Your task to perform on an android device: turn on airplane mode Image 0: 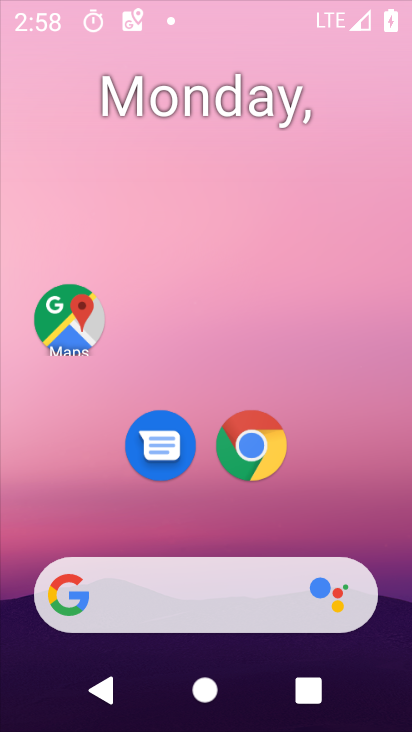
Step 0: click (204, 7)
Your task to perform on an android device: turn on airplane mode Image 1: 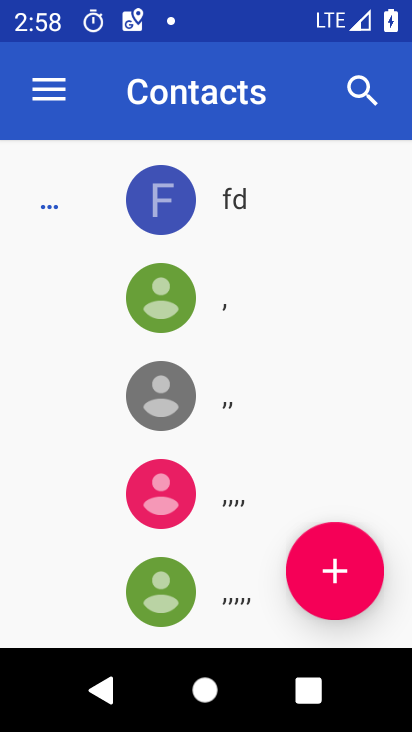
Step 1: press home button
Your task to perform on an android device: turn on airplane mode Image 2: 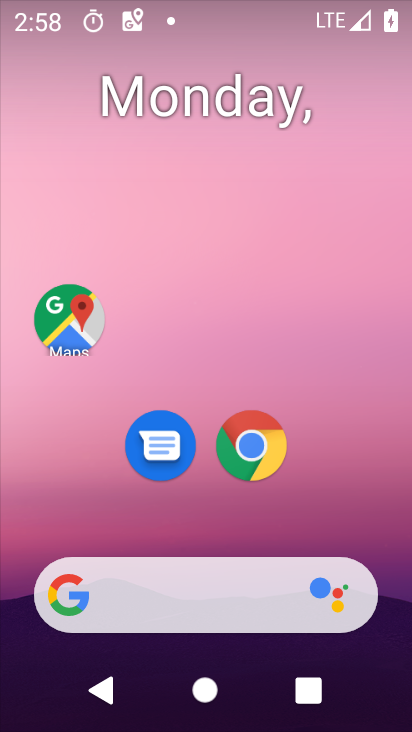
Step 2: drag from (182, 562) to (161, 95)
Your task to perform on an android device: turn on airplane mode Image 3: 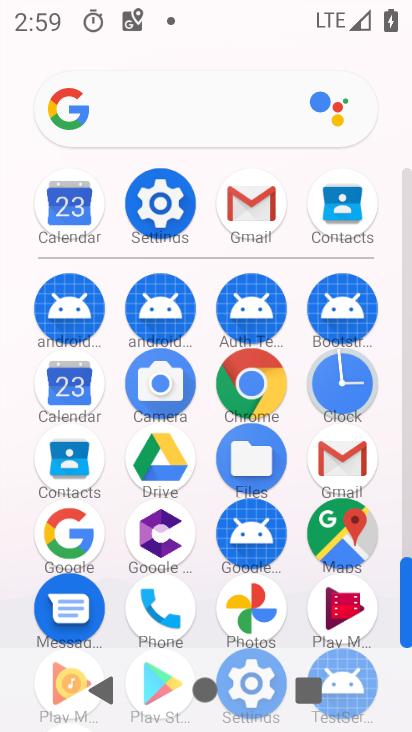
Step 3: click (159, 185)
Your task to perform on an android device: turn on airplane mode Image 4: 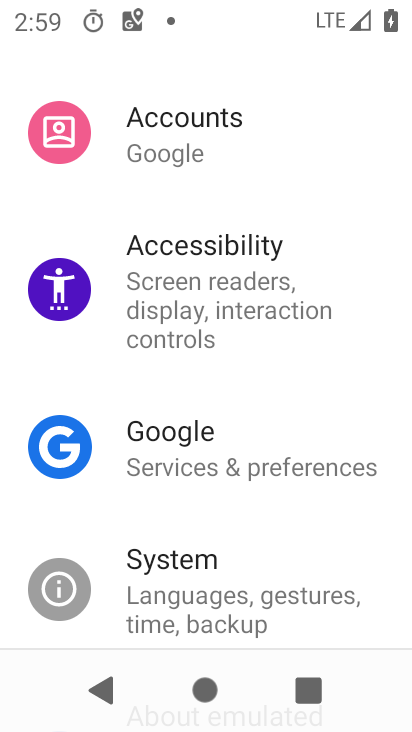
Step 4: drag from (183, 163) to (206, 662)
Your task to perform on an android device: turn on airplane mode Image 5: 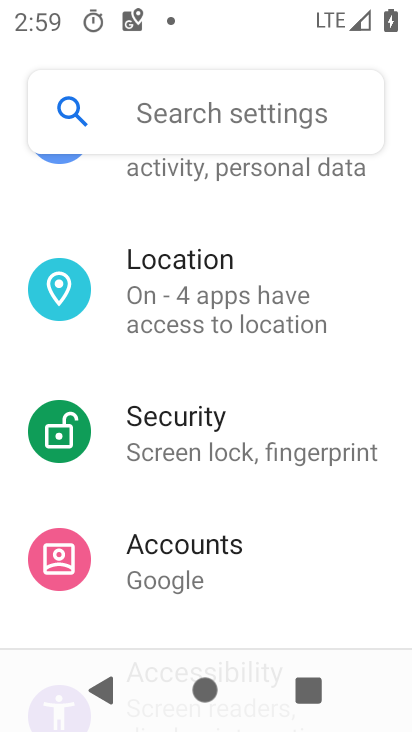
Step 5: drag from (227, 180) to (145, 711)
Your task to perform on an android device: turn on airplane mode Image 6: 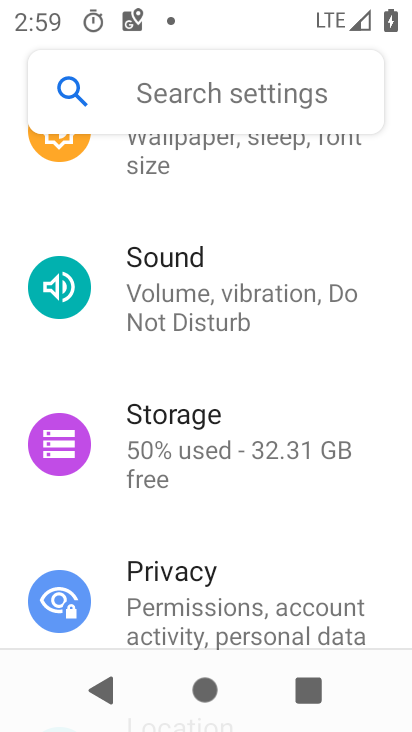
Step 6: drag from (208, 157) to (230, 725)
Your task to perform on an android device: turn on airplane mode Image 7: 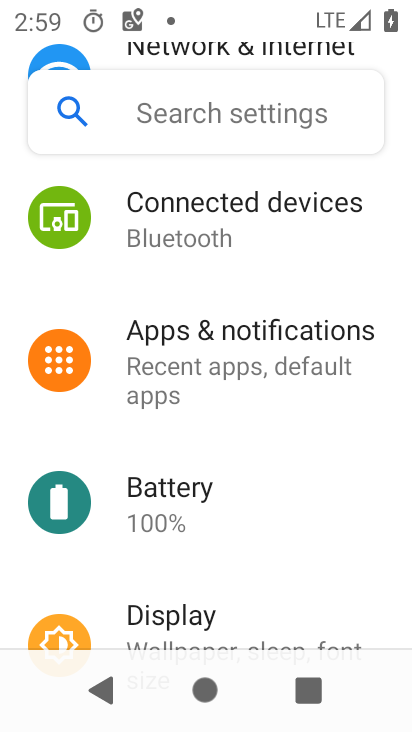
Step 7: drag from (249, 170) to (272, 640)
Your task to perform on an android device: turn on airplane mode Image 8: 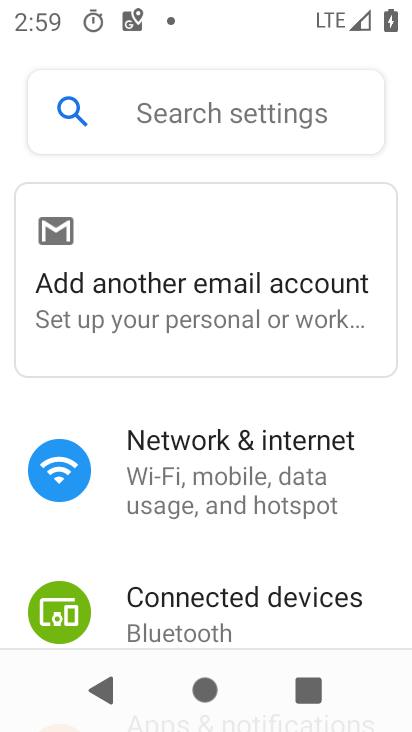
Step 8: click (221, 462)
Your task to perform on an android device: turn on airplane mode Image 9: 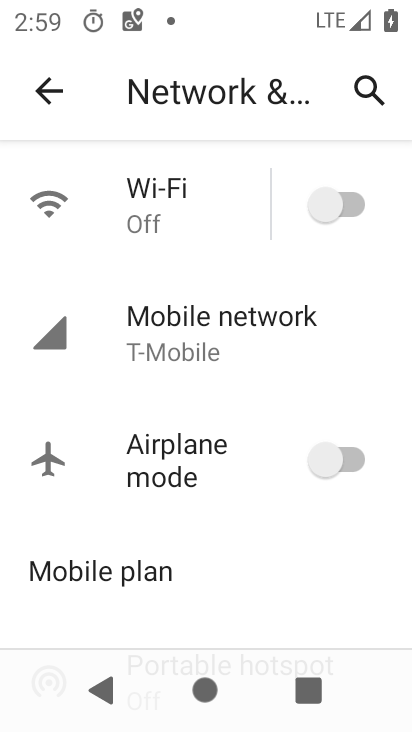
Step 9: click (350, 459)
Your task to perform on an android device: turn on airplane mode Image 10: 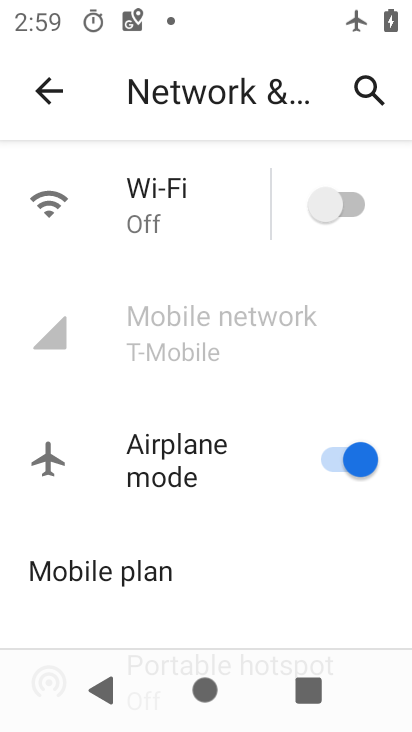
Step 10: task complete